Your task to perform on an android device: Open battery settings Image 0: 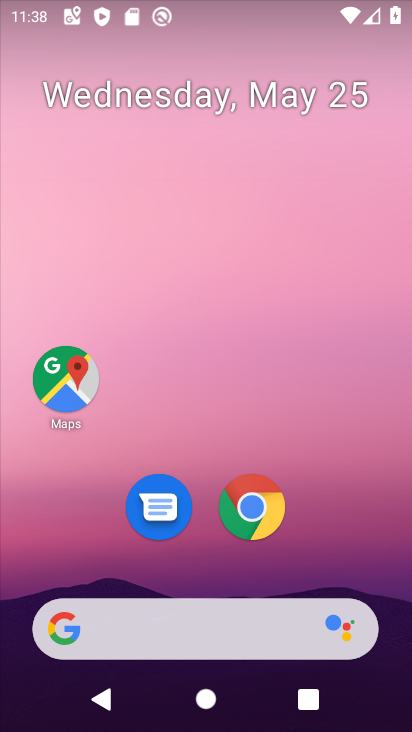
Step 0: drag from (334, 543) to (271, 1)
Your task to perform on an android device: Open battery settings Image 1: 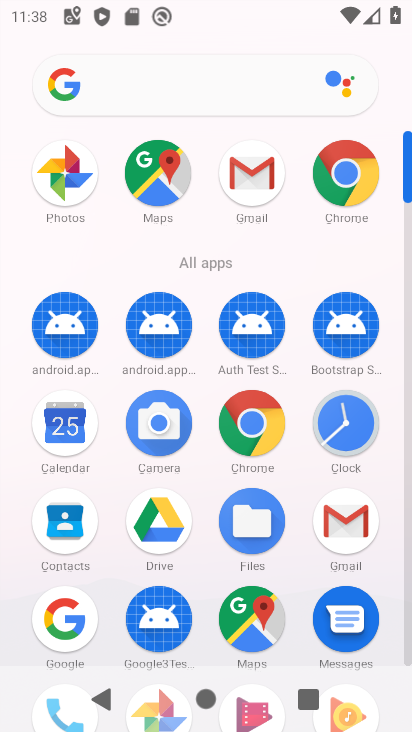
Step 1: drag from (295, 296) to (267, 77)
Your task to perform on an android device: Open battery settings Image 2: 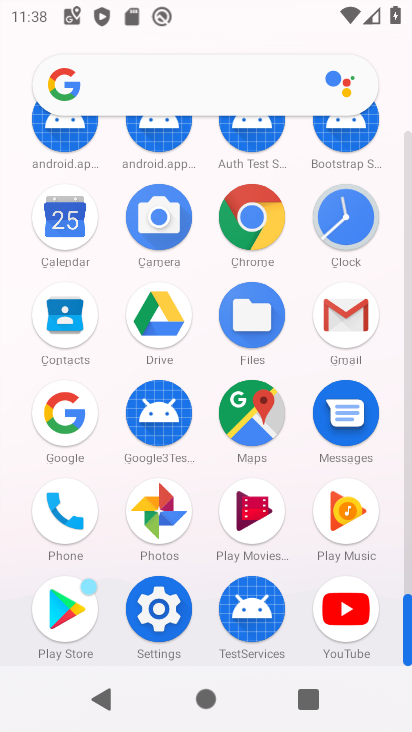
Step 2: click (160, 610)
Your task to perform on an android device: Open battery settings Image 3: 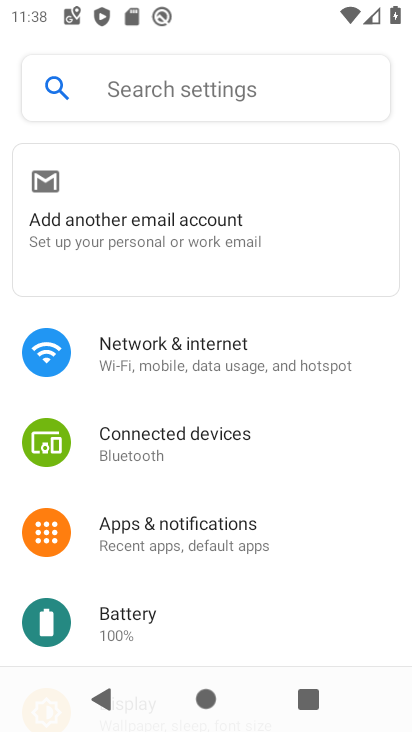
Step 3: click (127, 614)
Your task to perform on an android device: Open battery settings Image 4: 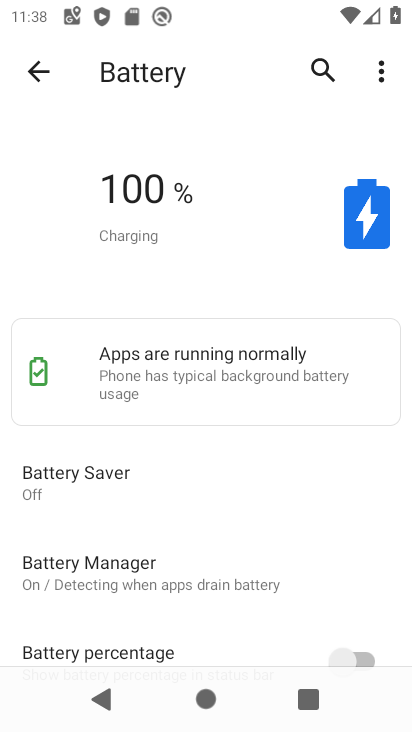
Step 4: task complete